Your task to perform on an android device: Search for pizza restaurants on Maps Image 0: 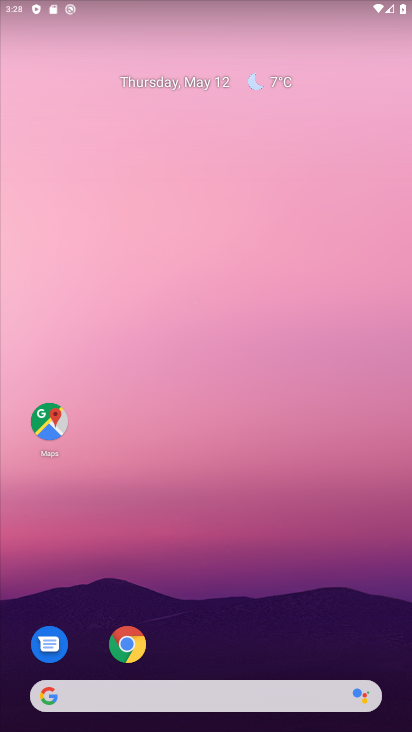
Step 0: press home button
Your task to perform on an android device: Search for pizza restaurants on Maps Image 1: 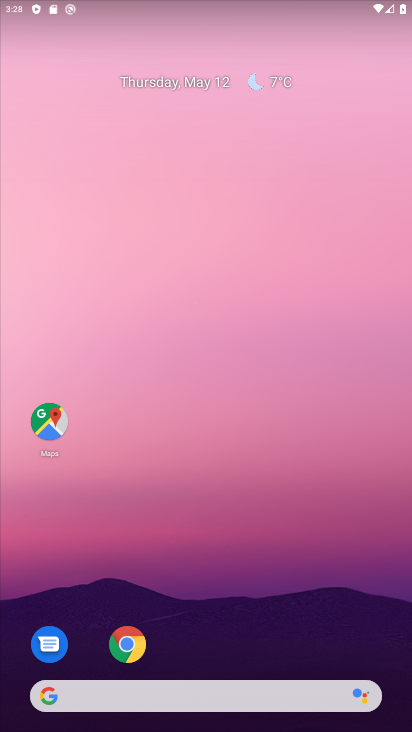
Step 1: click (53, 417)
Your task to perform on an android device: Search for pizza restaurants on Maps Image 2: 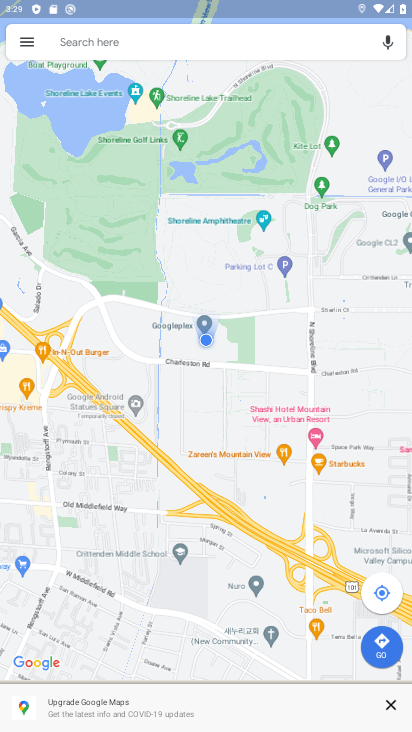
Step 2: click (113, 33)
Your task to perform on an android device: Search for pizza restaurants on Maps Image 3: 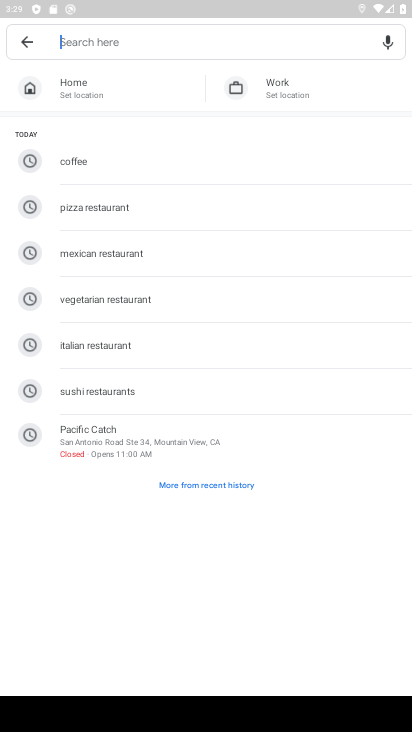
Step 3: click (112, 215)
Your task to perform on an android device: Search for pizza restaurants on Maps Image 4: 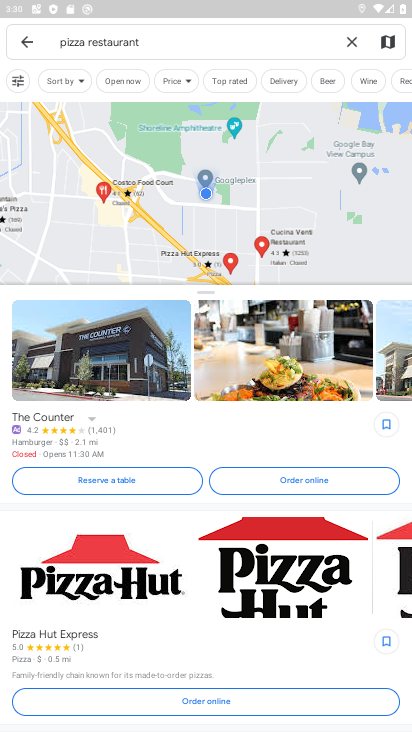
Step 4: task complete